Your task to perform on an android device: toggle sleep mode Image 0: 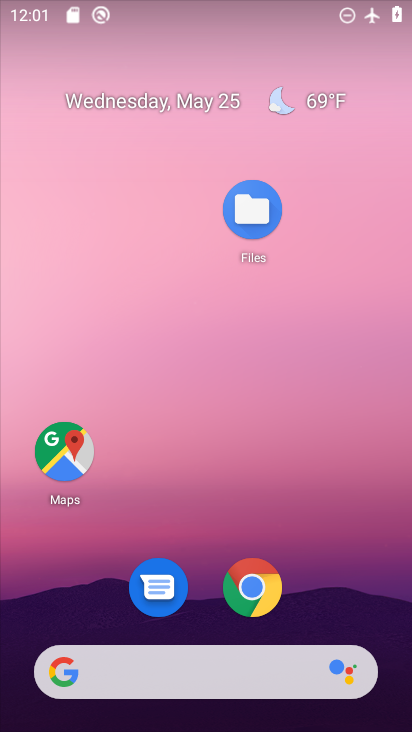
Step 0: drag from (339, 574) to (32, 244)
Your task to perform on an android device: toggle sleep mode Image 1: 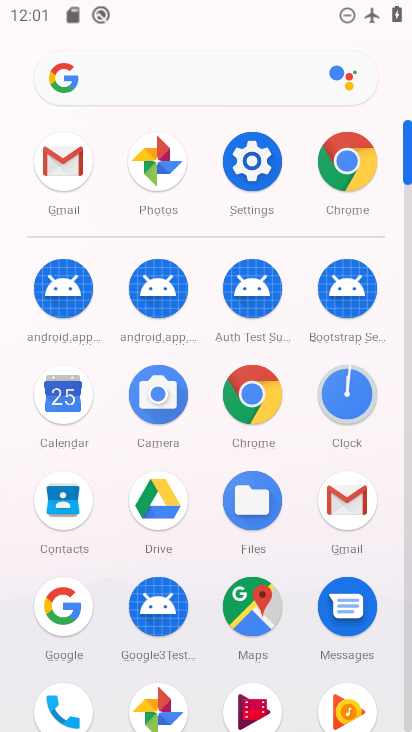
Step 1: click (274, 166)
Your task to perform on an android device: toggle sleep mode Image 2: 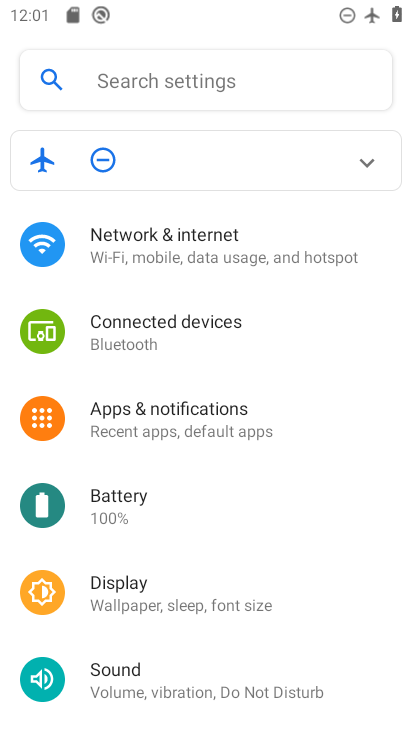
Step 2: click (156, 616)
Your task to perform on an android device: toggle sleep mode Image 3: 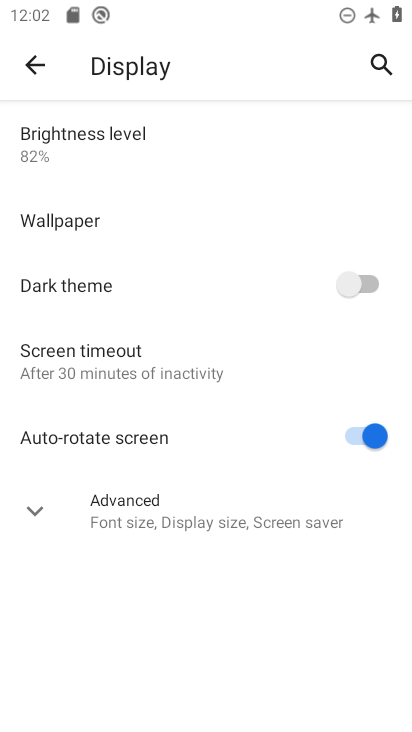
Step 3: click (183, 523)
Your task to perform on an android device: toggle sleep mode Image 4: 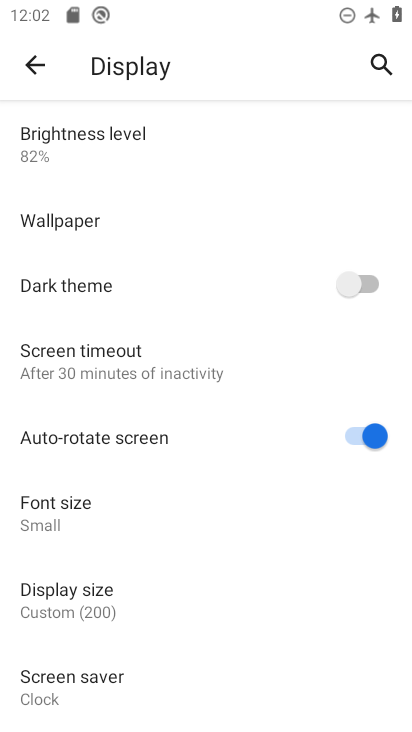
Step 4: task complete